Your task to perform on an android device: Go to wifi settings Image 0: 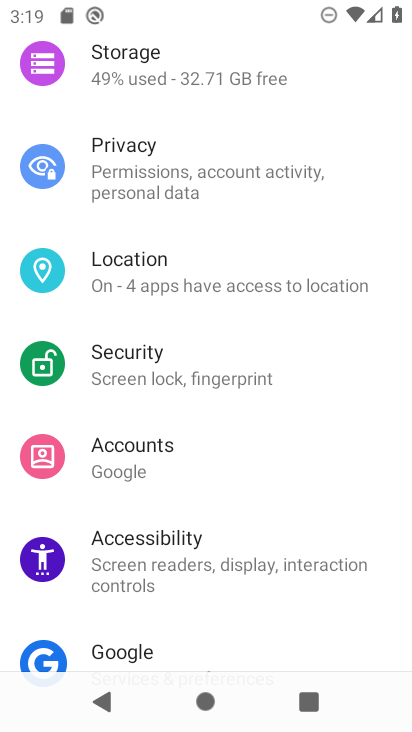
Step 0: drag from (283, 270) to (232, 559)
Your task to perform on an android device: Go to wifi settings Image 1: 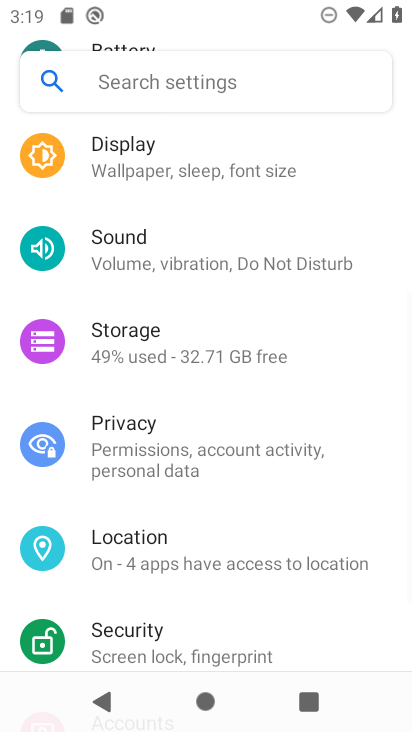
Step 1: drag from (164, 198) to (162, 592)
Your task to perform on an android device: Go to wifi settings Image 2: 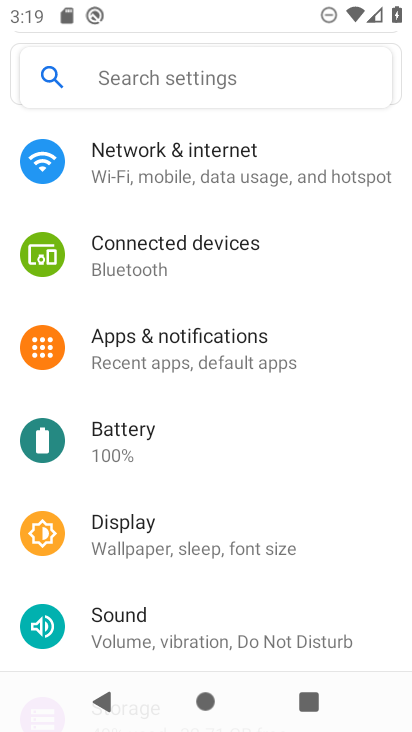
Step 2: click (253, 169)
Your task to perform on an android device: Go to wifi settings Image 3: 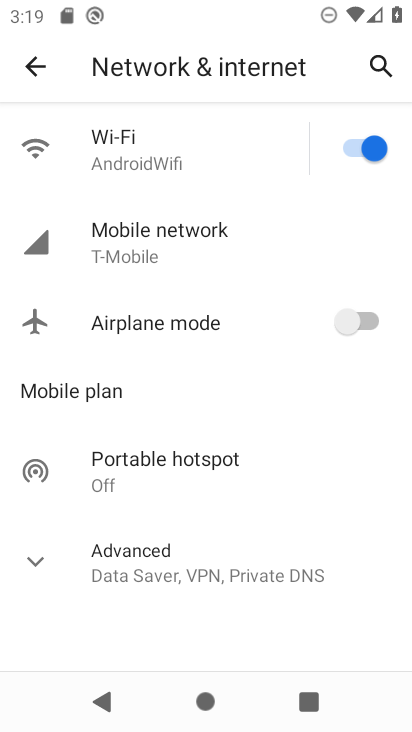
Step 3: click (179, 153)
Your task to perform on an android device: Go to wifi settings Image 4: 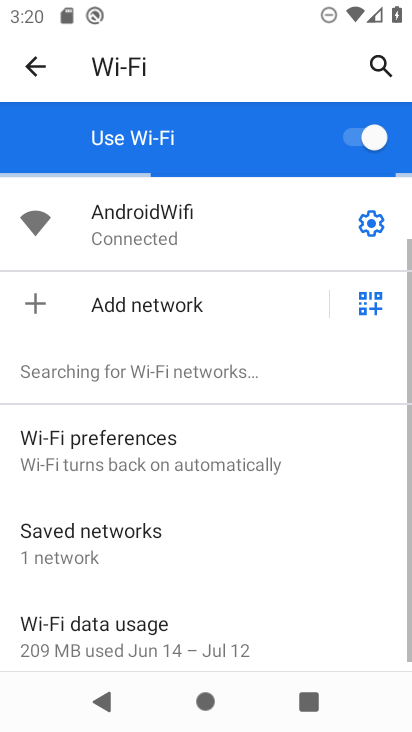
Step 4: task complete